Your task to perform on an android device: open a new tab in the chrome app Image 0: 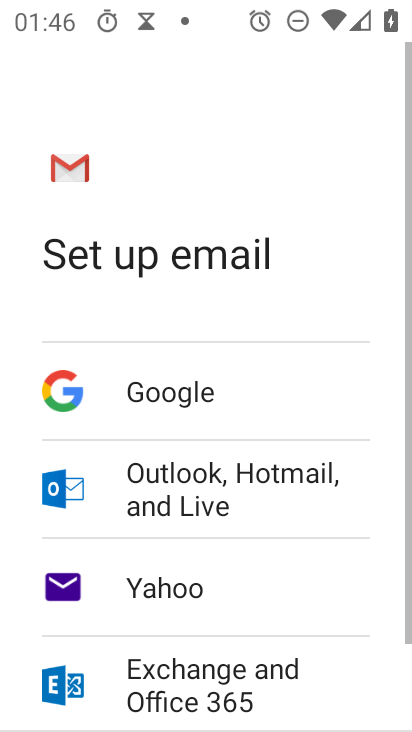
Step 0: press home button
Your task to perform on an android device: open a new tab in the chrome app Image 1: 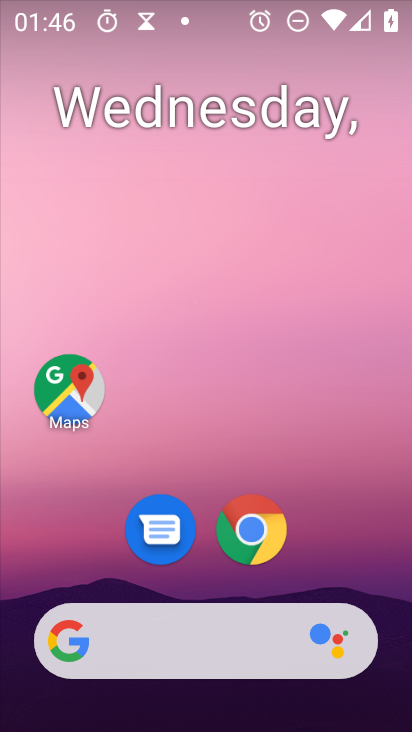
Step 1: drag from (268, 688) to (316, 52)
Your task to perform on an android device: open a new tab in the chrome app Image 2: 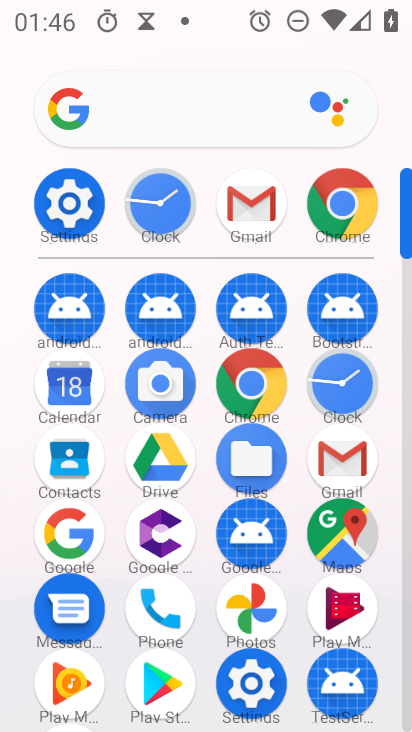
Step 2: click (256, 377)
Your task to perform on an android device: open a new tab in the chrome app Image 3: 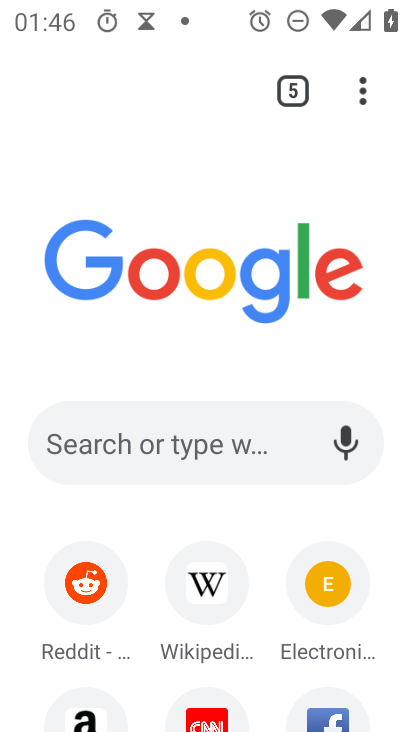
Step 3: task complete